Your task to perform on an android device: Open calendar and show me the second week of next month Image 0: 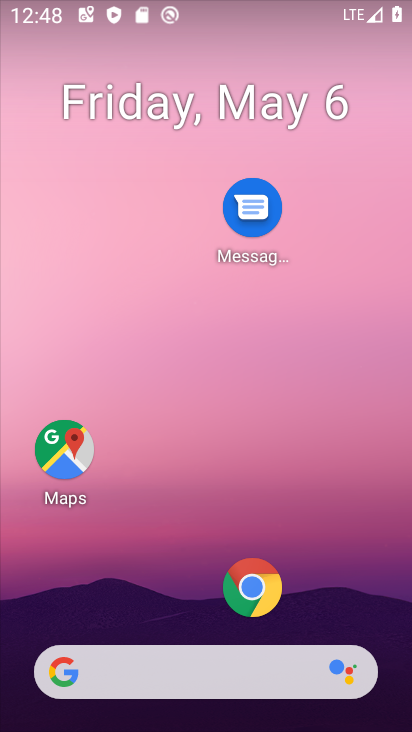
Step 0: drag from (124, 586) to (225, 26)
Your task to perform on an android device: Open calendar and show me the second week of next month Image 1: 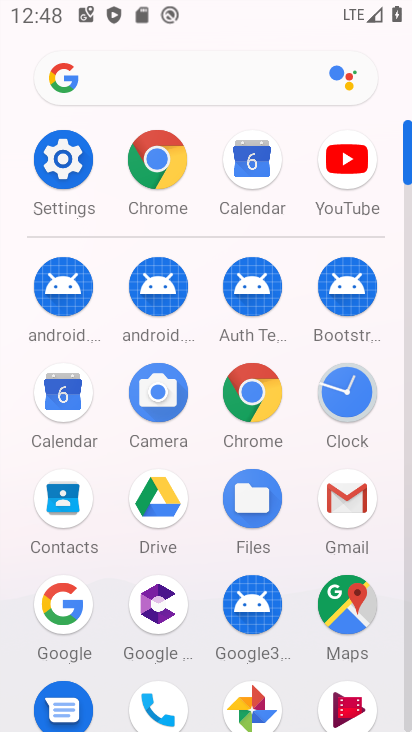
Step 1: click (69, 402)
Your task to perform on an android device: Open calendar and show me the second week of next month Image 2: 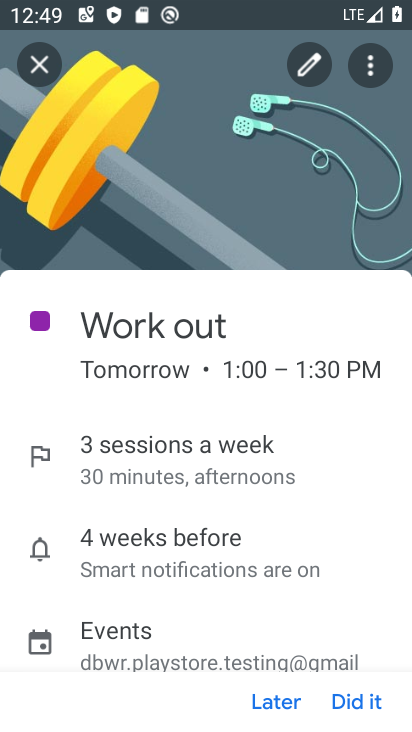
Step 2: click (276, 705)
Your task to perform on an android device: Open calendar and show me the second week of next month Image 3: 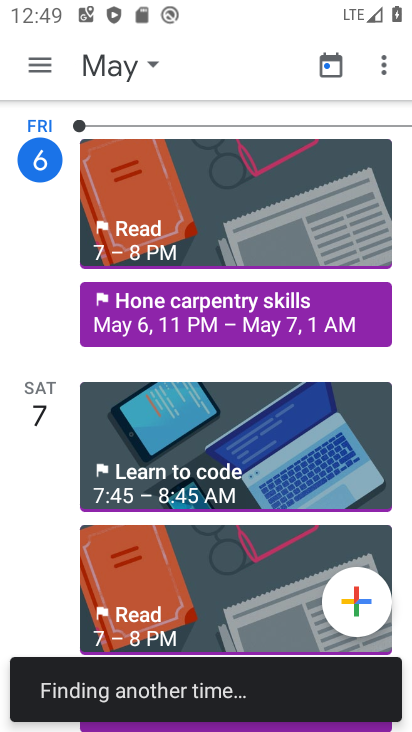
Step 3: click (125, 64)
Your task to perform on an android device: Open calendar and show me the second week of next month Image 4: 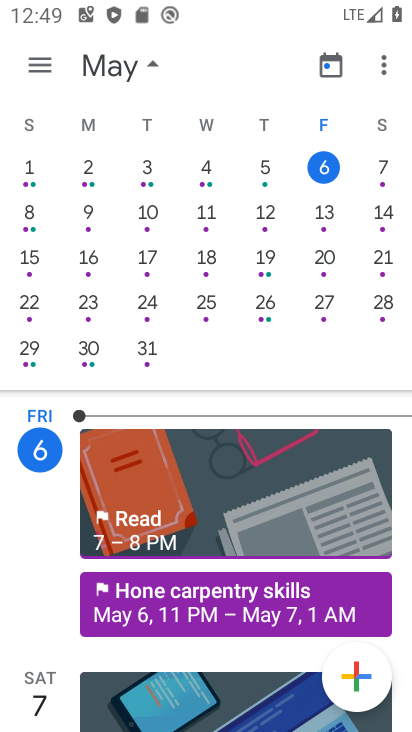
Step 4: drag from (334, 245) to (0, 233)
Your task to perform on an android device: Open calendar and show me the second week of next month Image 5: 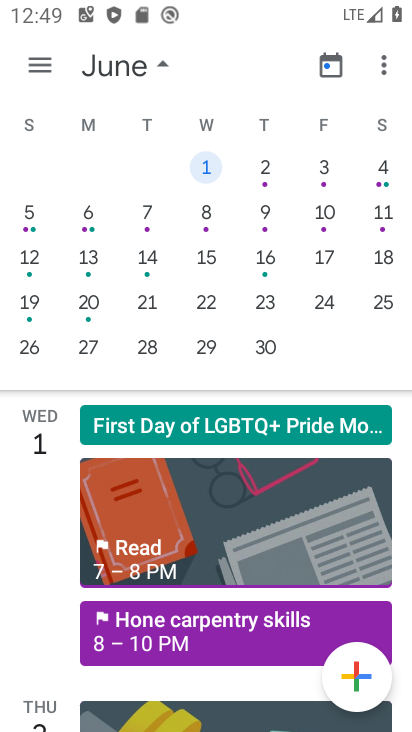
Step 5: click (207, 213)
Your task to perform on an android device: Open calendar and show me the second week of next month Image 6: 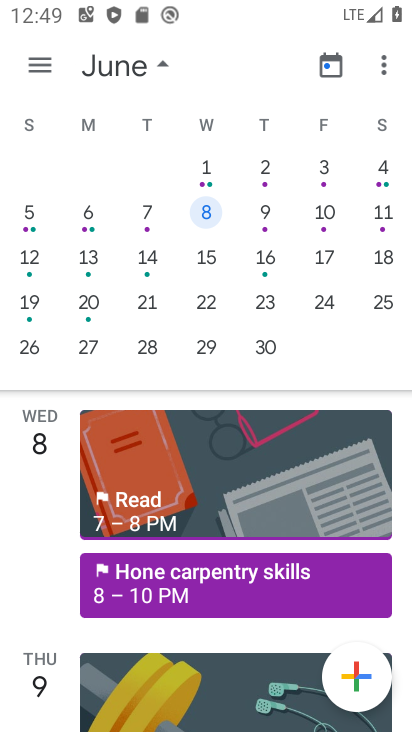
Step 6: click (80, 206)
Your task to perform on an android device: Open calendar and show me the second week of next month Image 7: 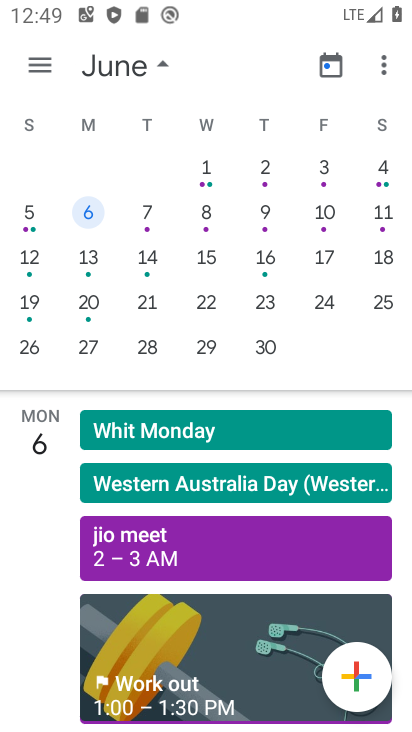
Step 7: task complete